Your task to perform on an android device: What's the weather today? Image 0: 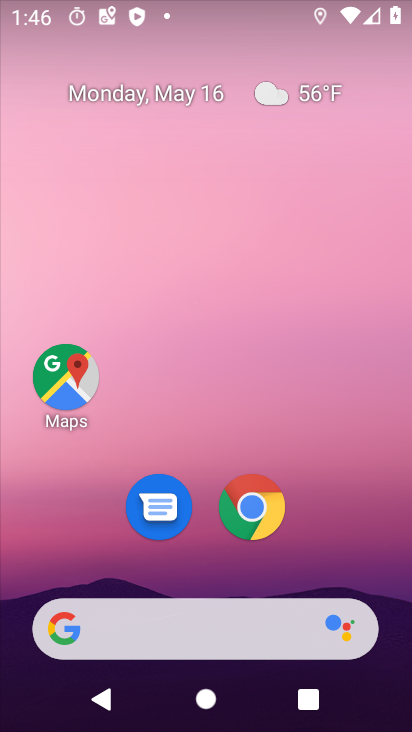
Step 0: drag from (201, 549) to (187, 61)
Your task to perform on an android device: What's the weather today? Image 1: 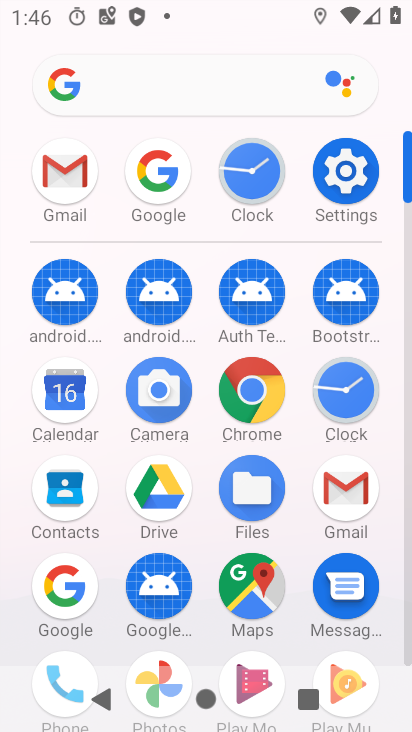
Step 1: click (163, 170)
Your task to perform on an android device: What's the weather today? Image 2: 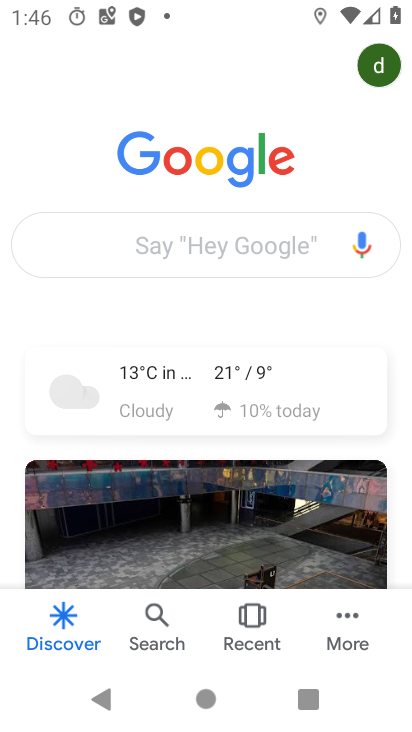
Step 2: click (171, 239)
Your task to perform on an android device: What's the weather today? Image 3: 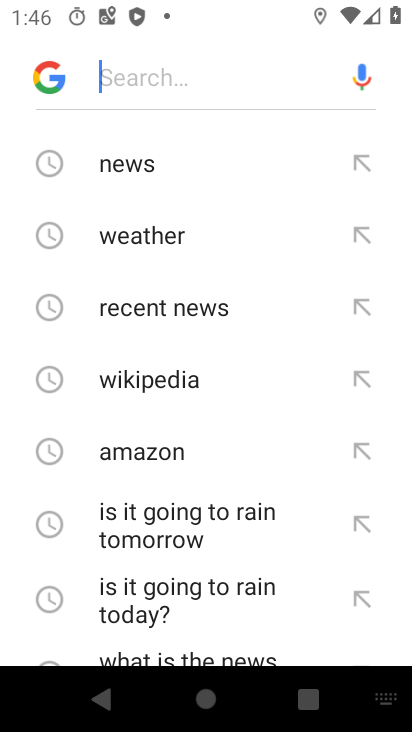
Step 3: click (147, 234)
Your task to perform on an android device: What's the weather today? Image 4: 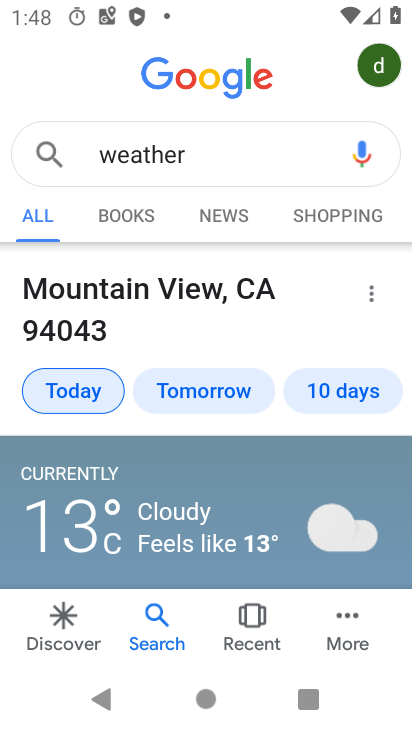
Step 4: task complete